Your task to perform on an android device: Open maps Image 0: 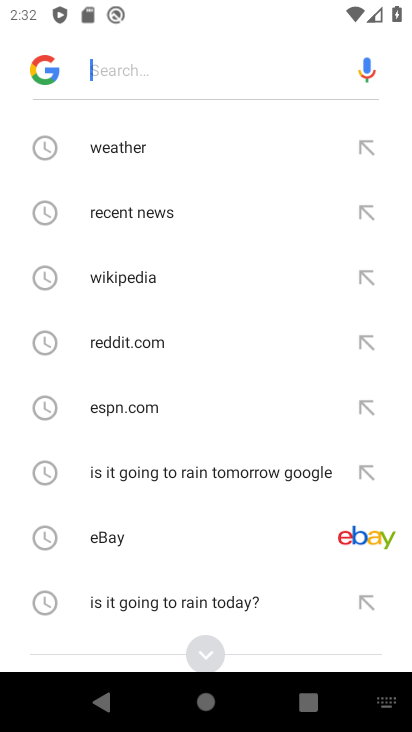
Step 0: press home button
Your task to perform on an android device: Open maps Image 1: 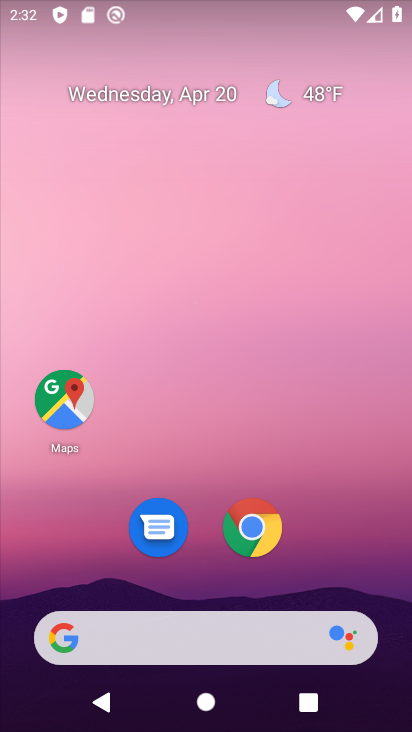
Step 1: click (70, 387)
Your task to perform on an android device: Open maps Image 2: 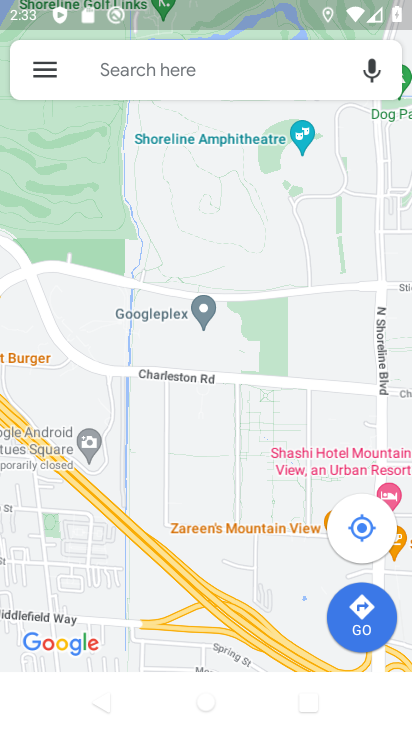
Step 2: task complete